Your task to perform on an android device: delete a single message in the gmail app Image 0: 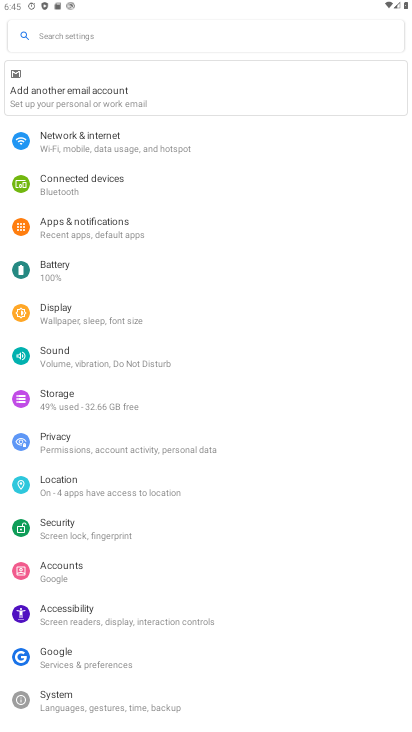
Step 0: press home button
Your task to perform on an android device: delete a single message in the gmail app Image 1: 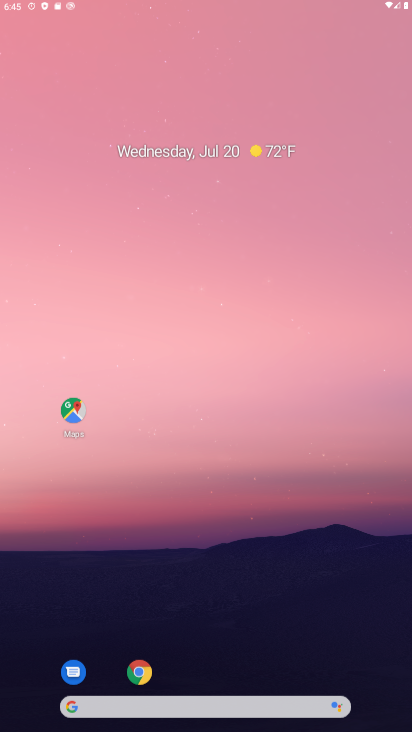
Step 1: drag from (390, 704) to (215, 1)
Your task to perform on an android device: delete a single message in the gmail app Image 2: 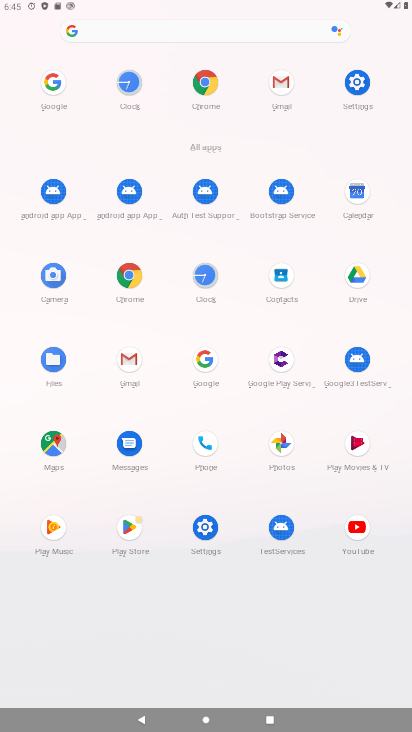
Step 2: click (126, 361)
Your task to perform on an android device: delete a single message in the gmail app Image 3: 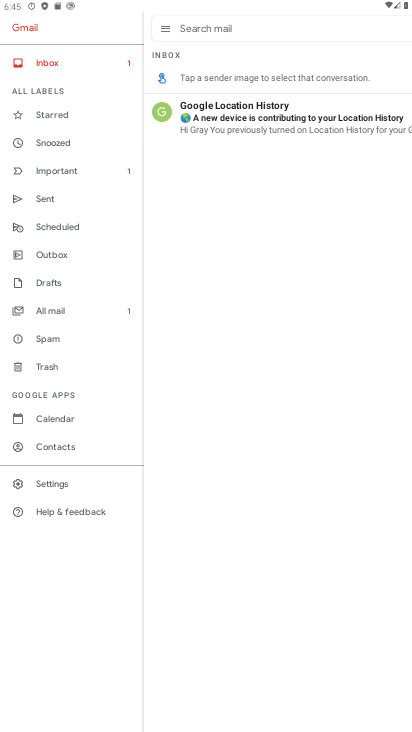
Step 3: click (295, 114)
Your task to perform on an android device: delete a single message in the gmail app Image 4: 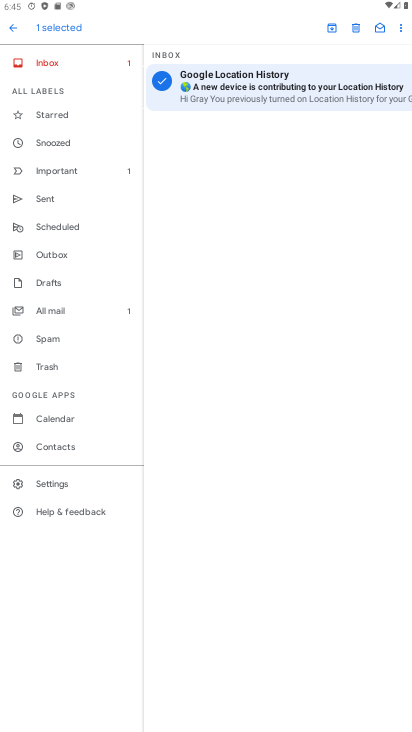
Step 4: click (356, 23)
Your task to perform on an android device: delete a single message in the gmail app Image 5: 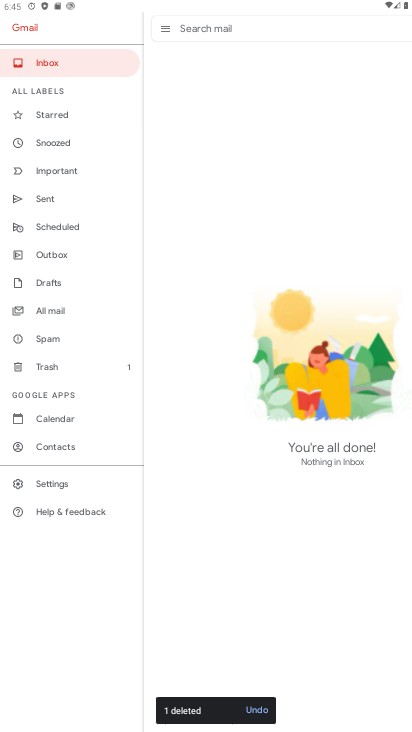
Step 5: task complete